Your task to perform on an android device: open app "Roku - Official Remote Control" (install if not already installed), go to login, and select forgot password Image 0: 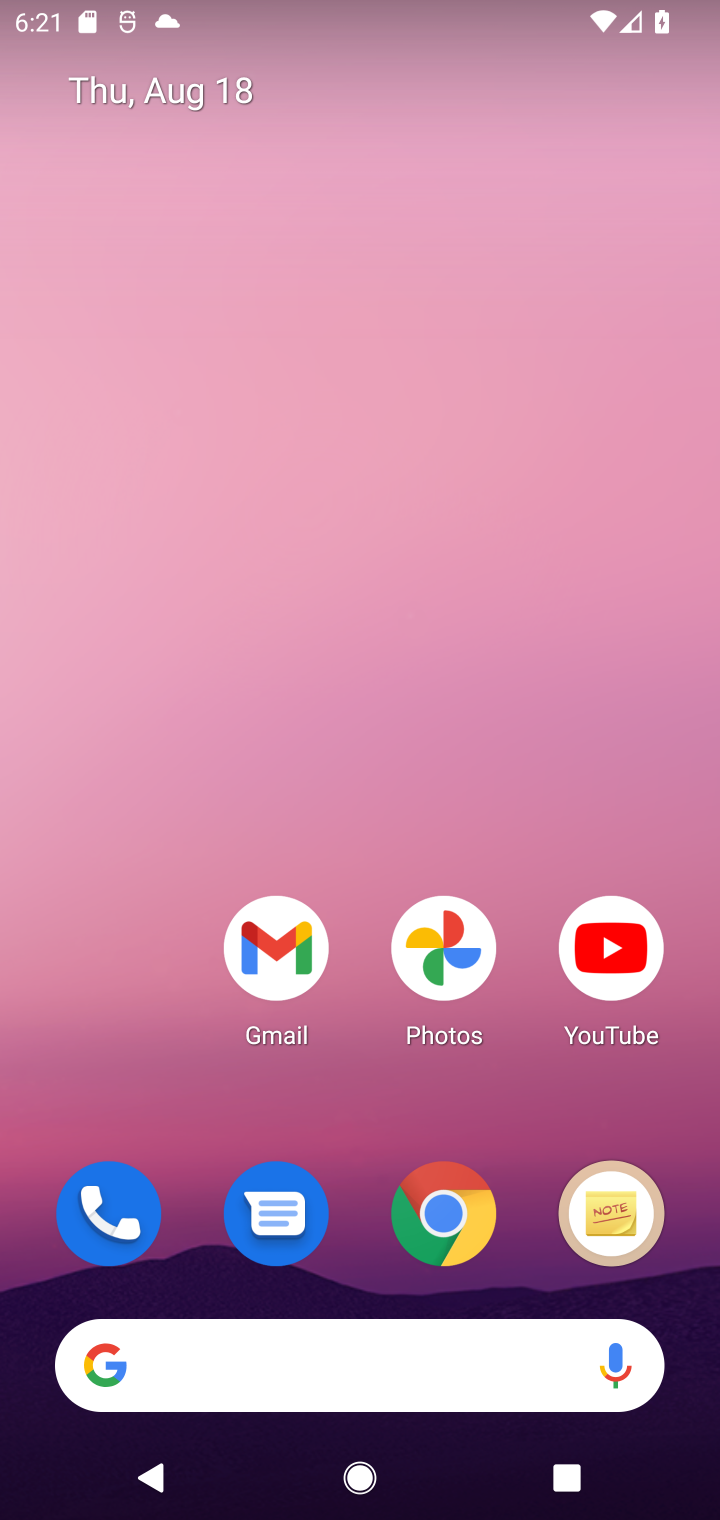
Step 0: press home button
Your task to perform on an android device: open app "Roku - Official Remote Control" (install if not already installed), go to login, and select forgot password Image 1: 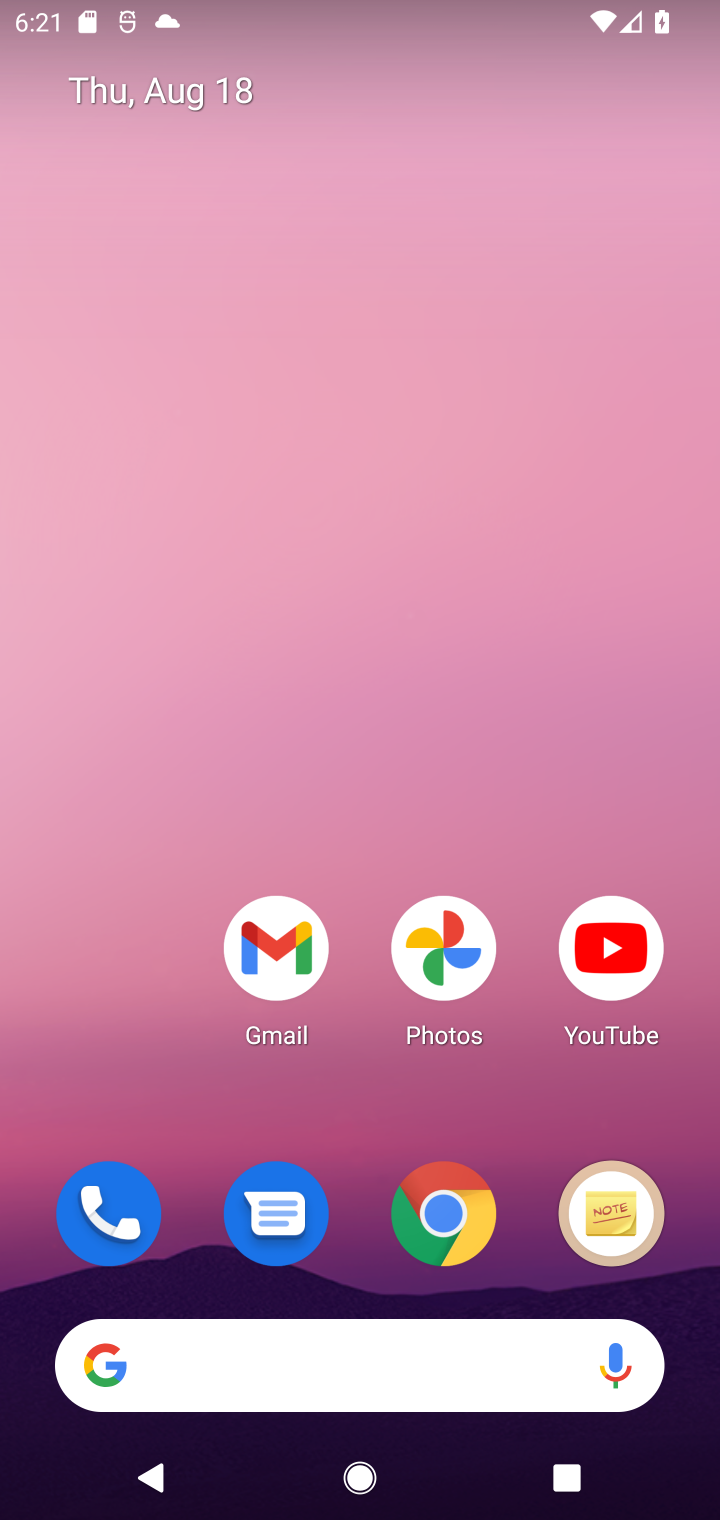
Step 1: drag from (357, 1153) to (435, 5)
Your task to perform on an android device: open app "Roku - Official Remote Control" (install if not already installed), go to login, and select forgot password Image 2: 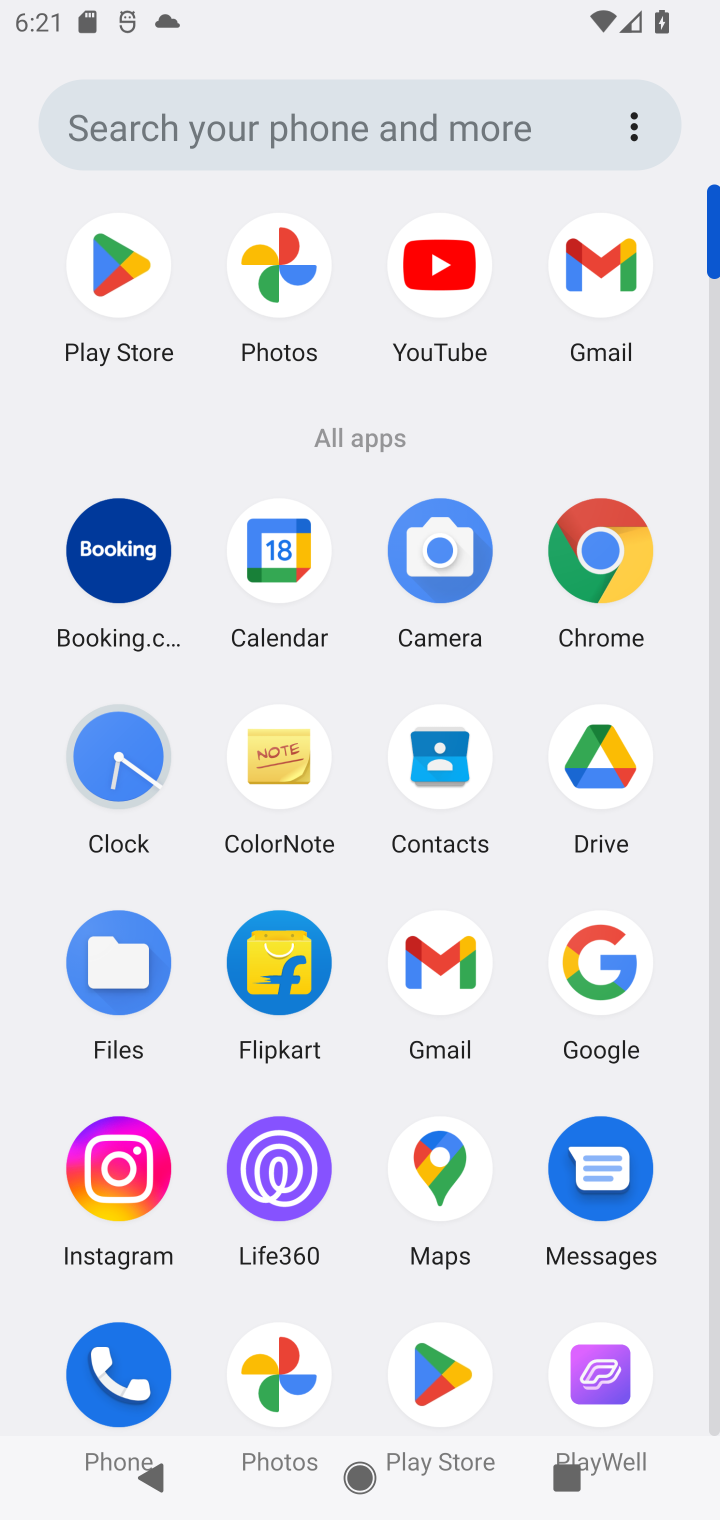
Step 2: click (112, 250)
Your task to perform on an android device: open app "Roku - Official Remote Control" (install if not already installed), go to login, and select forgot password Image 3: 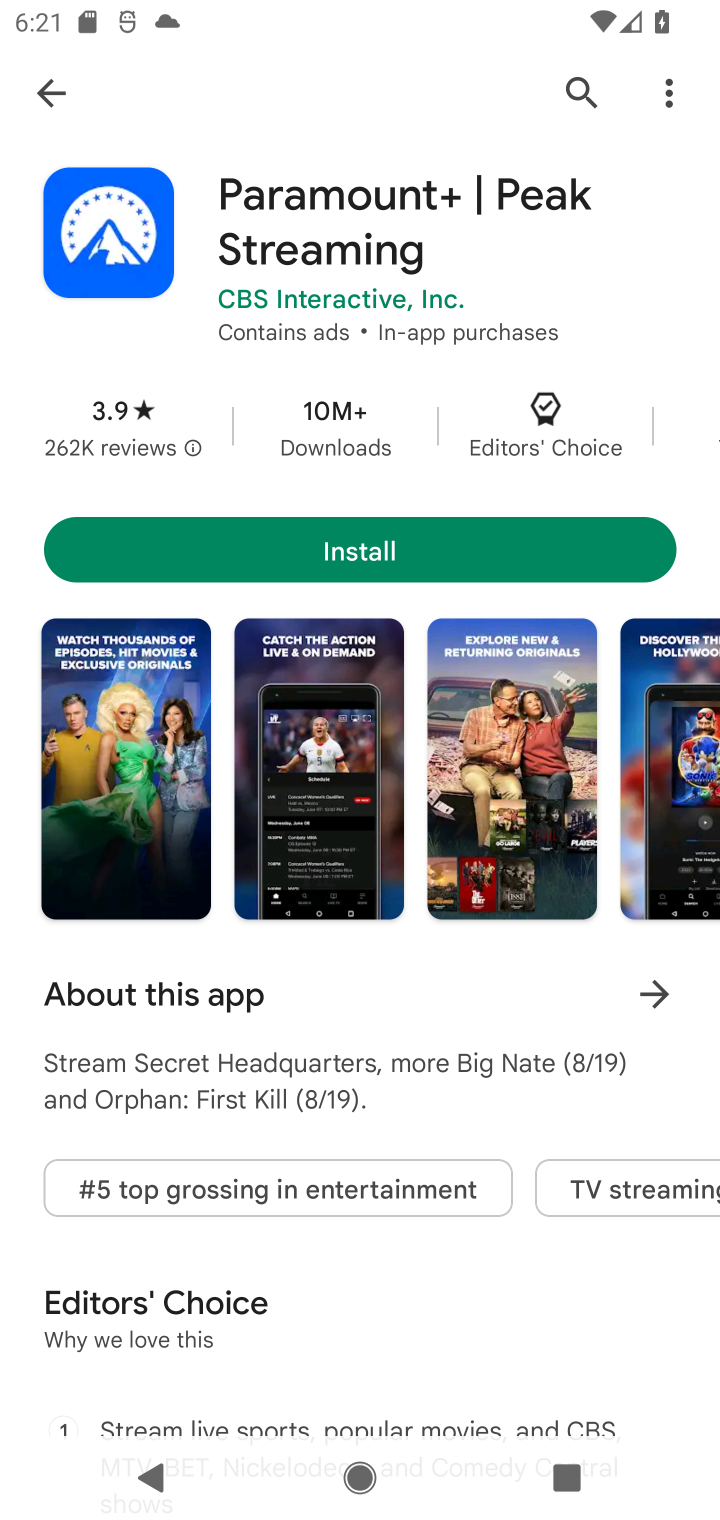
Step 3: click (573, 79)
Your task to perform on an android device: open app "Roku - Official Remote Control" (install if not already installed), go to login, and select forgot password Image 4: 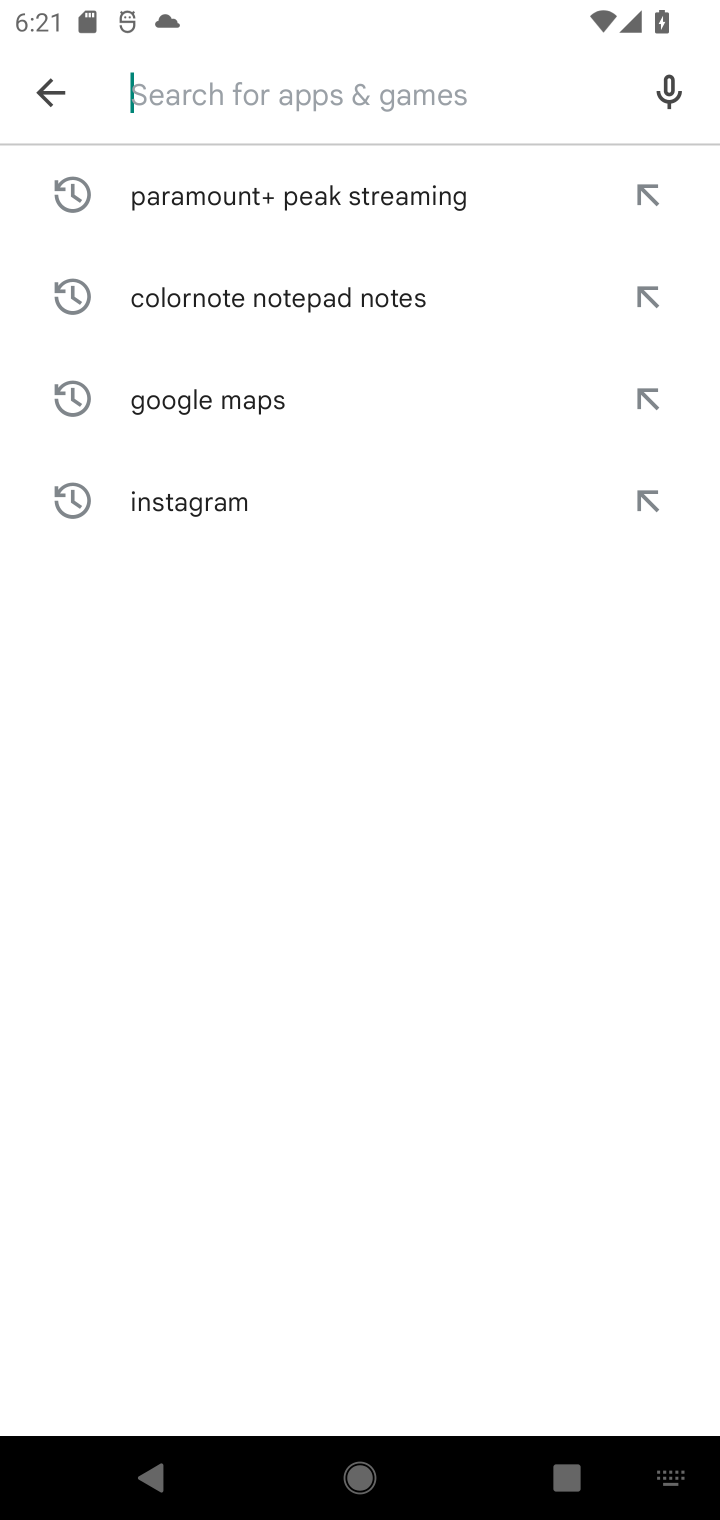
Step 4: type "Roku - Official Remote Control"
Your task to perform on an android device: open app "Roku - Official Remote Control" (install if not already installed), go to login, and select forgot password Image 5: 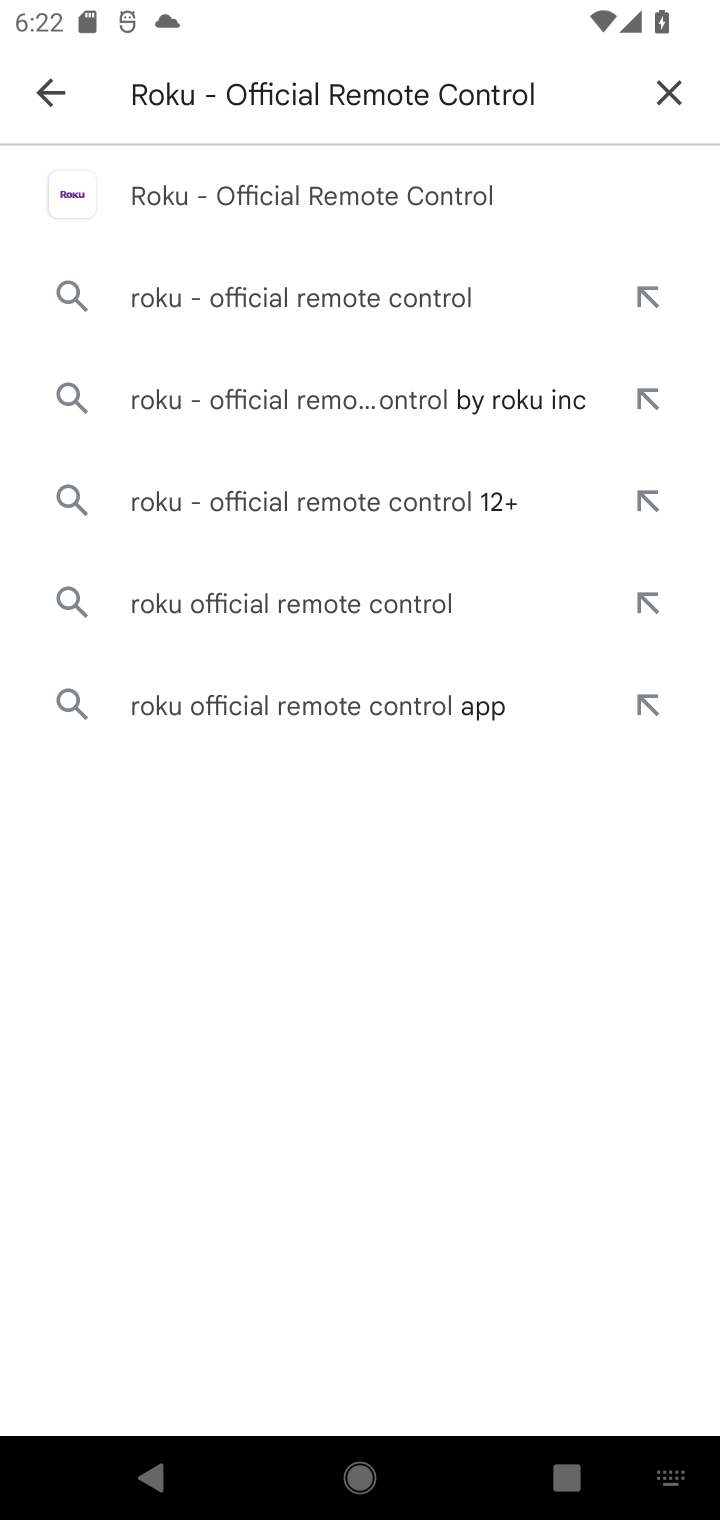
Step 5: click (263, 181)
Your task to perform on an android device: open app "Roku - Official Remote Control" (install if not already installed), go to login, and select forgot password Image 6: 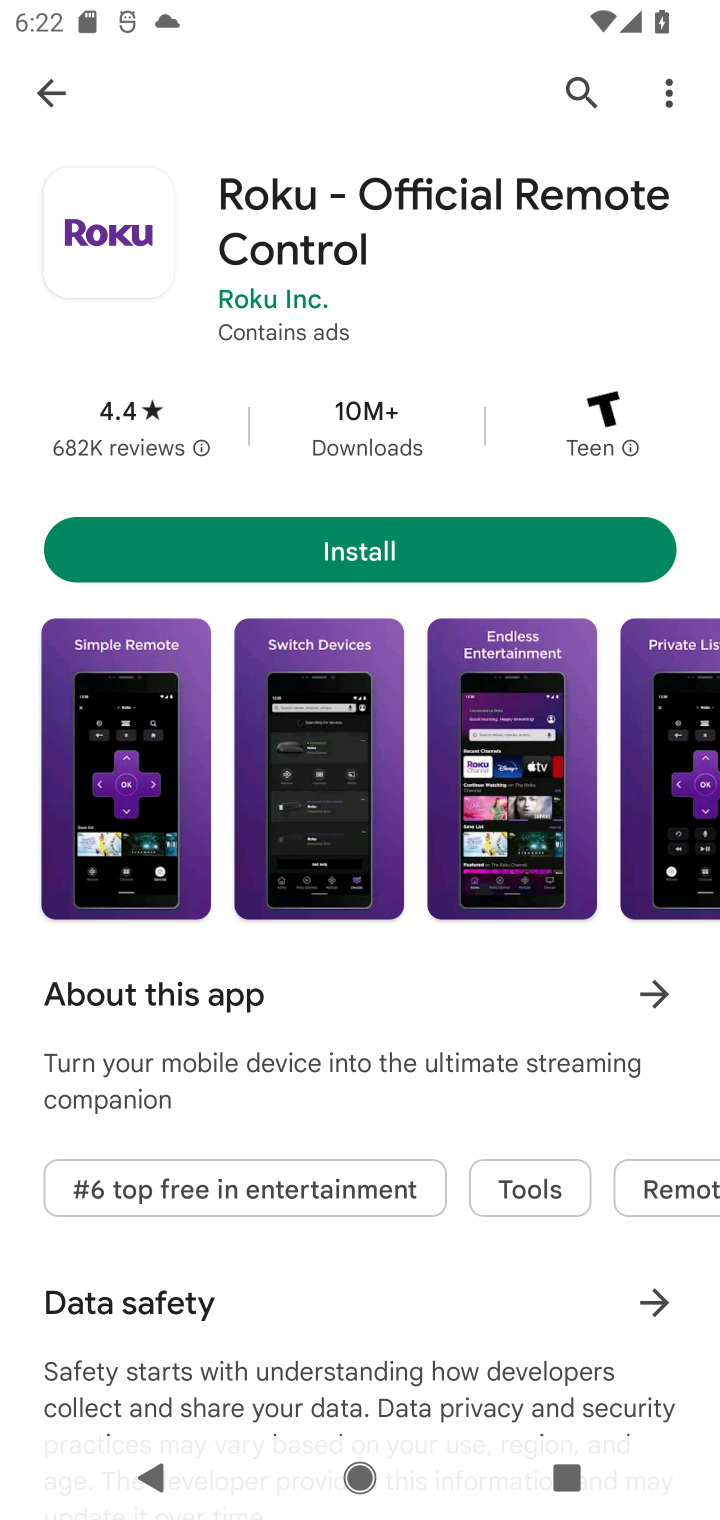
Step 6: click (357, 548)
Your task to perform on an android device: open app "Roku - Official Remote Control" (install if not already installed), go to login, and select forgot password Image 7: 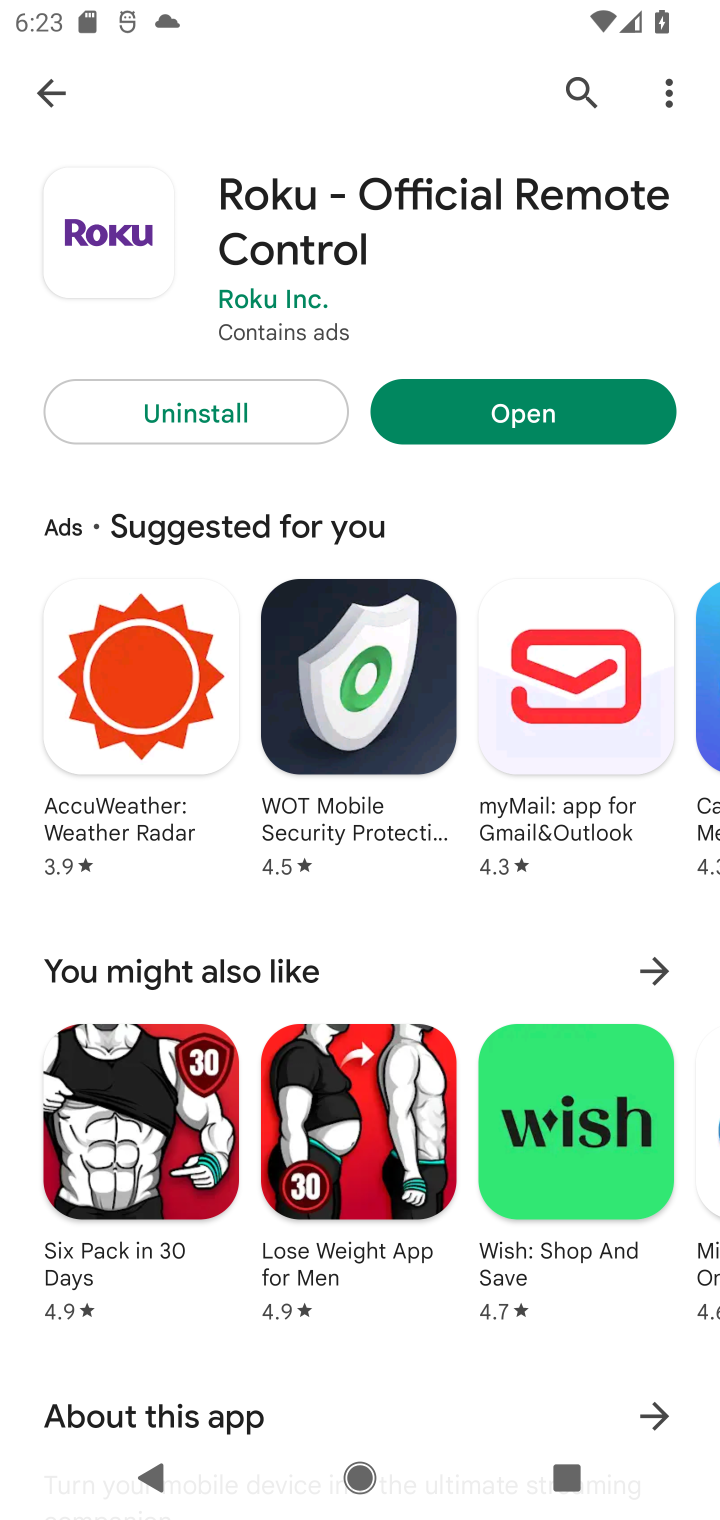
Step 7: click (536, 416)
Your task to perform on an android device: open app "Roku - Official Remote Control" (install if not already installed), go to login, and select forgot password Image 8: 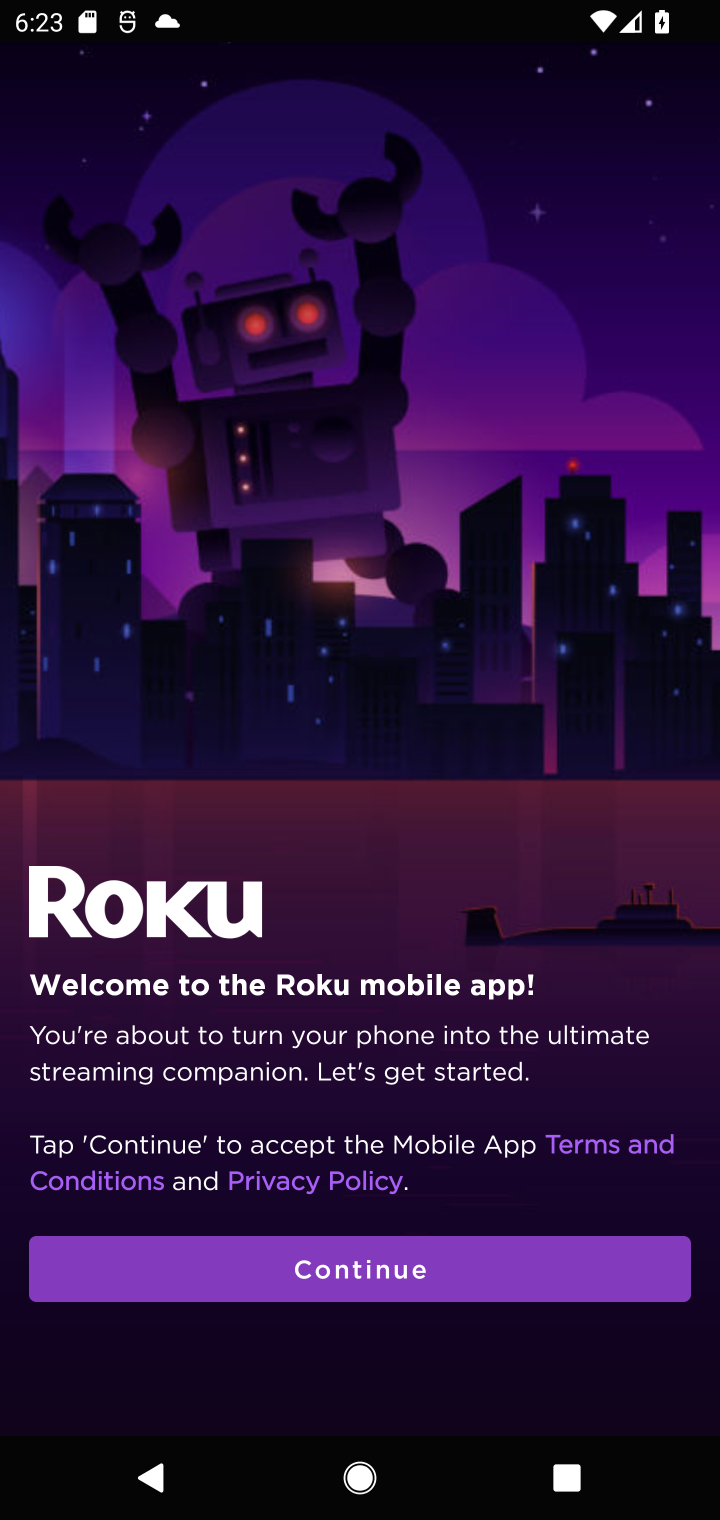
Step 8: click (348, 1262)
Your task to perform on an android device: open app "Roku - Official Remote Control" (install if not already installed), go to login, and select forgot password Image 9: 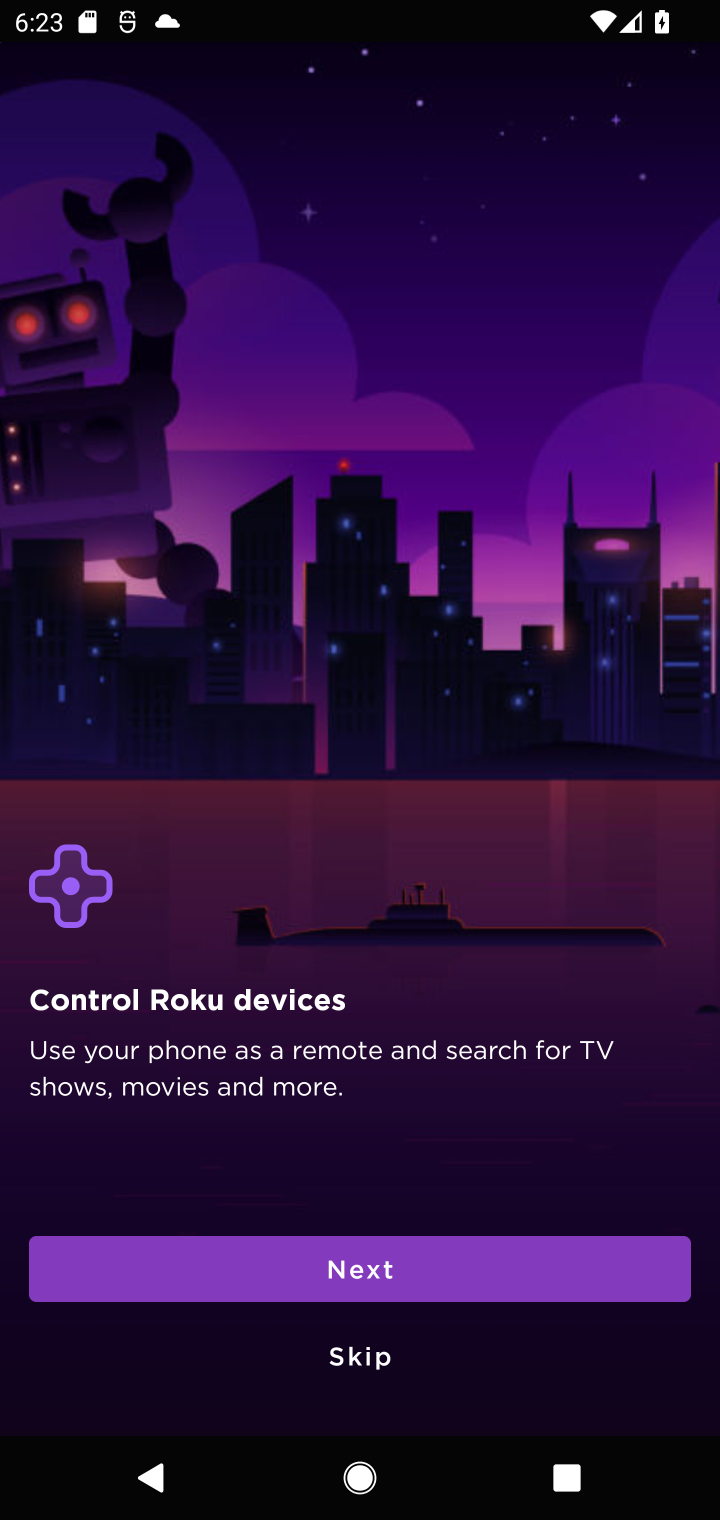
Step 9: click (364, 1271)
Your task to perform on an android device: open app "Roku - Official Remote Control" (install if not already installed), go to login, and select forgot password Image 10: 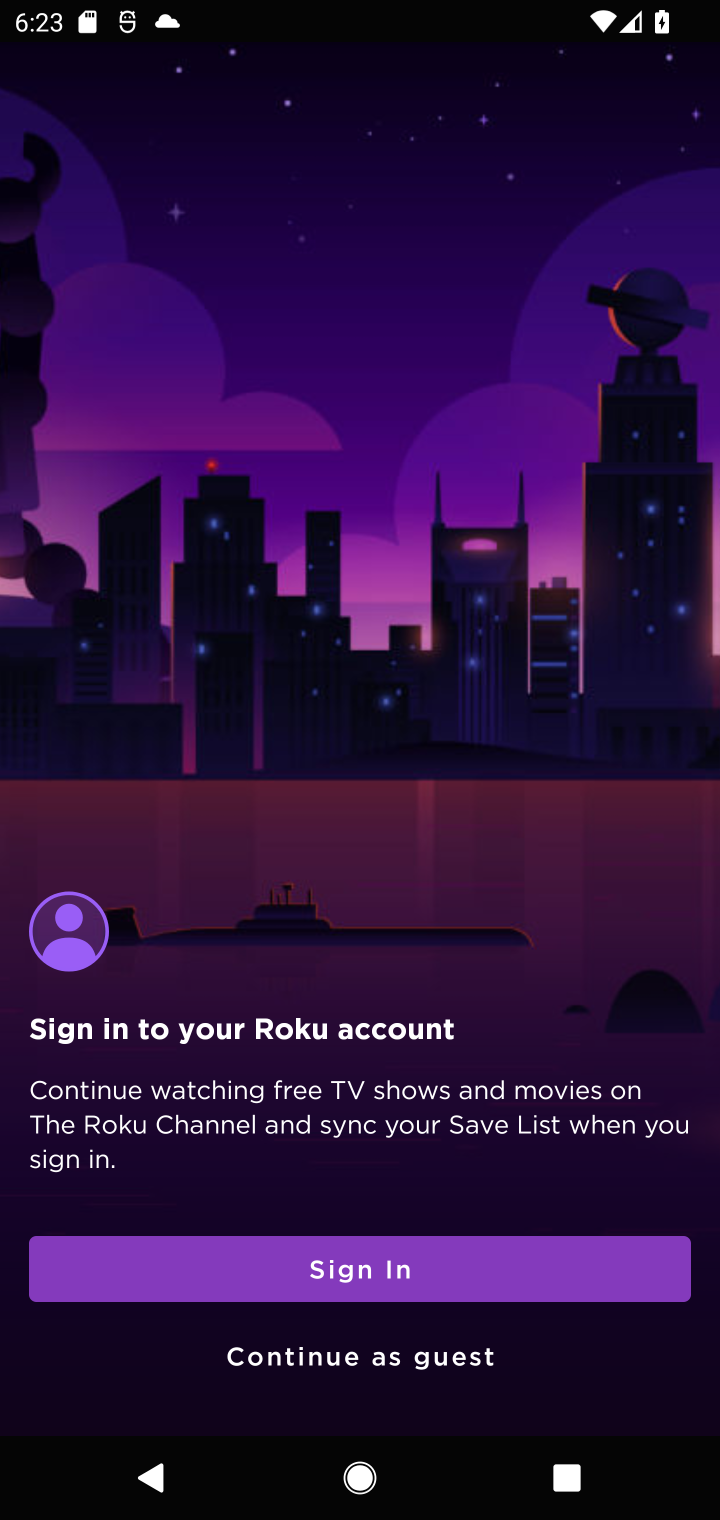
Step 10: click (364, 1271)
Your task to perform on an android device: open app "Roku - Official Remote Control" (install if not already installed), go to login, and select forgot password Image 11: 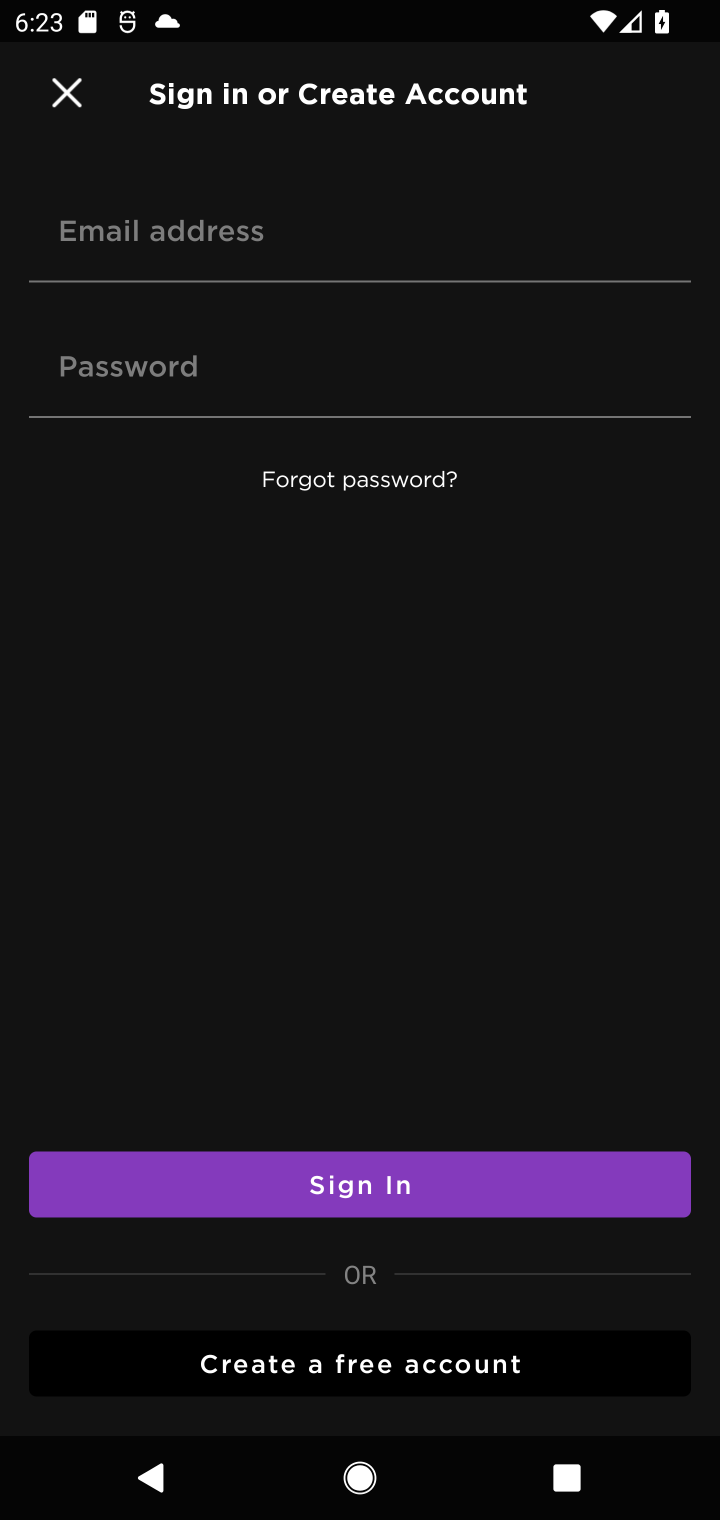
Step 11: click (355, 479)
Your task to perform on an android device: open app "Roku - Official Remote Control" (install if not already installed), go to login, and select forgot password Image 12: 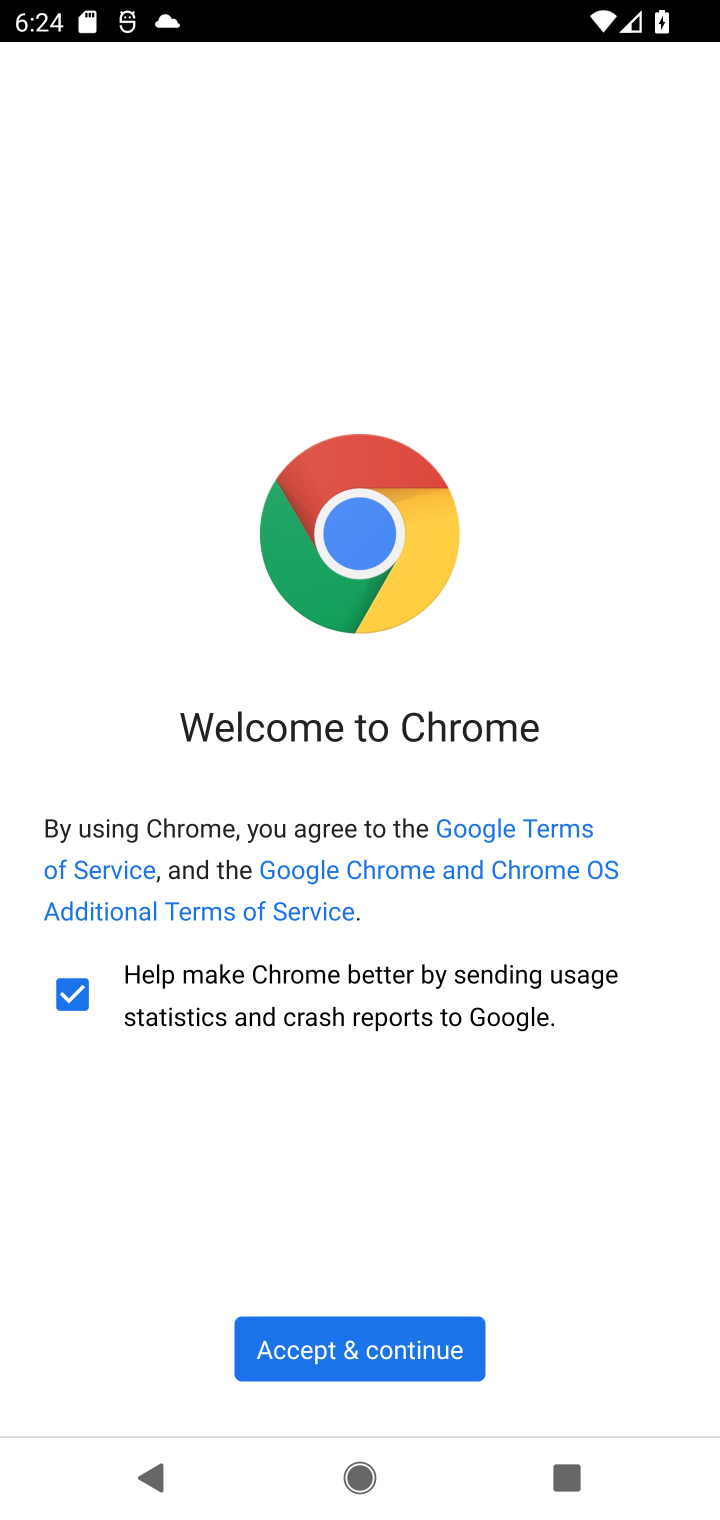
Step 12: task complete